Your task to perform on an android device: Open privacy settings Image 0: 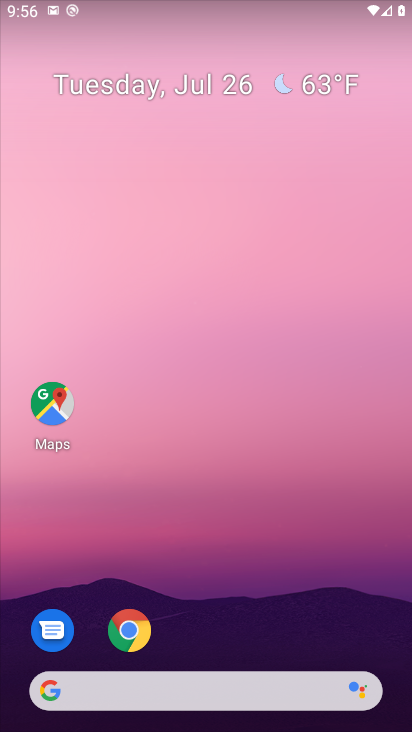
Step 0: click (208, 66)
Your task to perform on an android device: Open privacy settings Image 1: 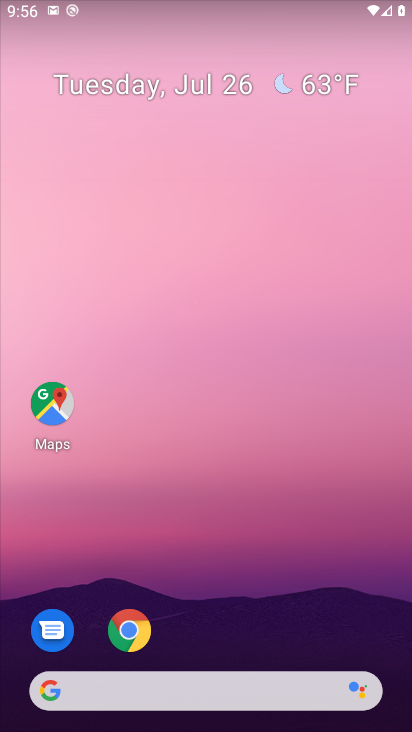
Step 1: drag from (208, 653) to (199, 150)
Your task to perform on an android device: Open privacy settings Image 2: 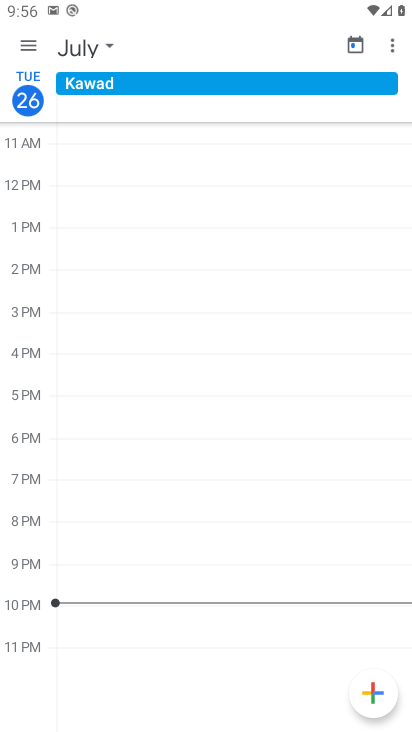
Step 2: press home button
Your task to perform on an android device: Open privacy settings Image 3: 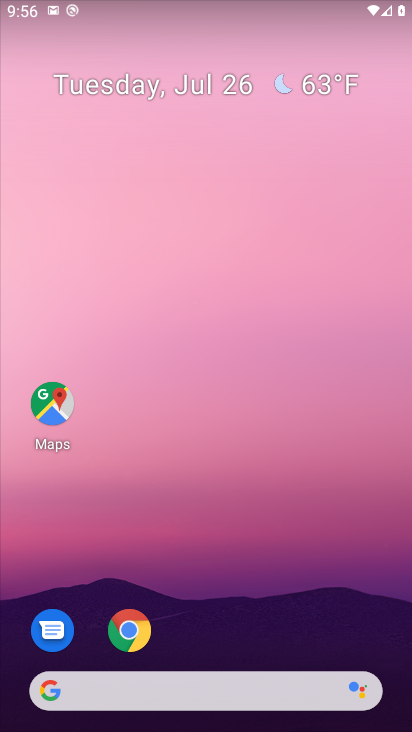
Step 3: drag from (235, 640) to (224, 75)
Your task to perform on an android device: Open privacy settings Image 4: 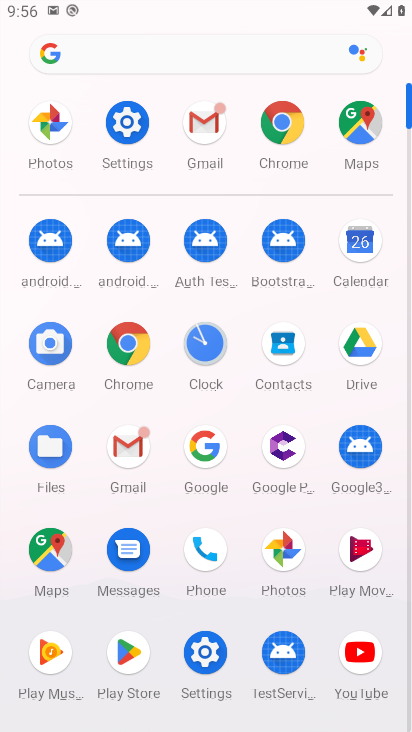
Step 4: click (124, 120)
Your task to perform on an android device: Open privacy settings Image 5: 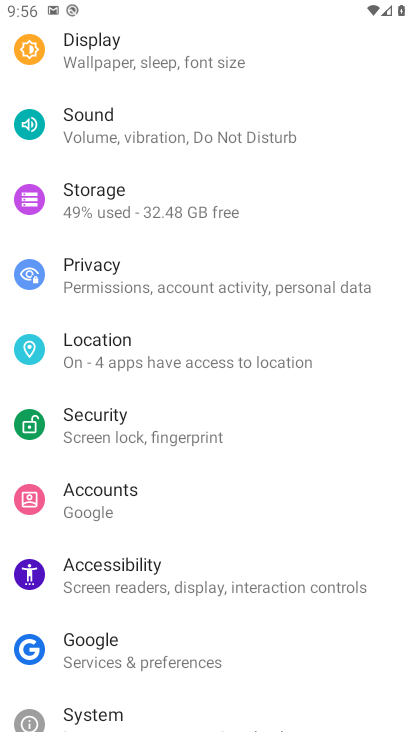
Step 5: click (130, 264)
Your task to perform on an android device: Open privacy settings Image 6: 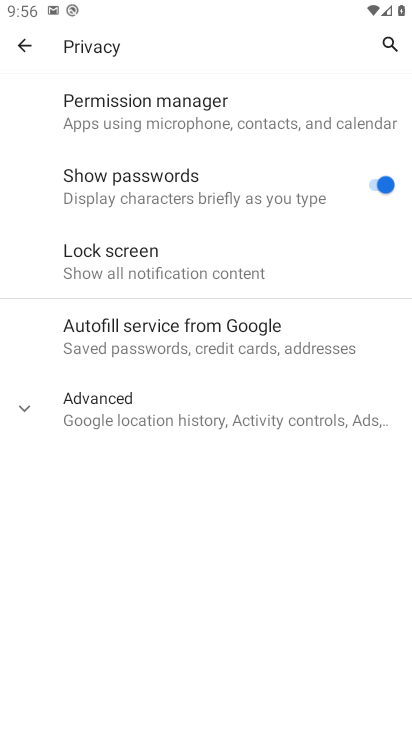
Step 6: click (25, 399)
Your task to perform on an android device: Open privacy settings Image 7: 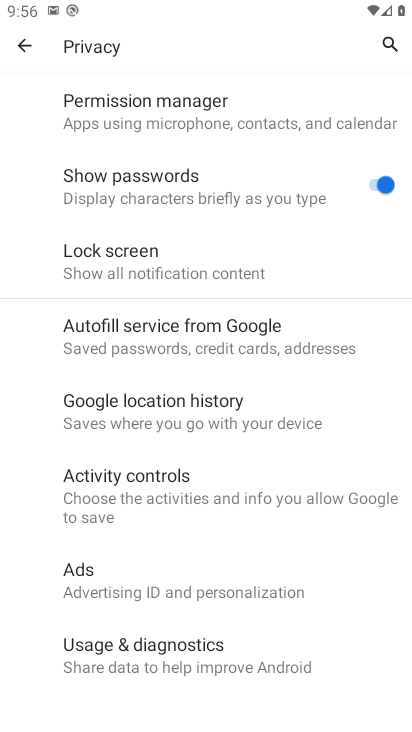
Step 7: task complete